Your task to perform on an android device: Set the phone to "Do not disturb". Image 0: 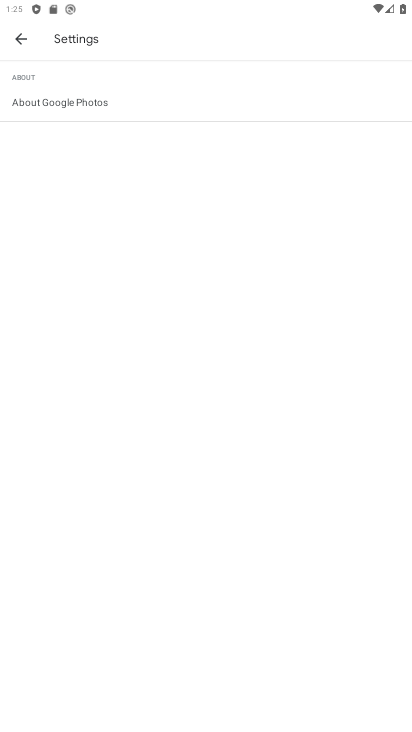
Step 0: press home button
Your task to perform on an android device: Set the phone to "Do not disturb". Image 1: 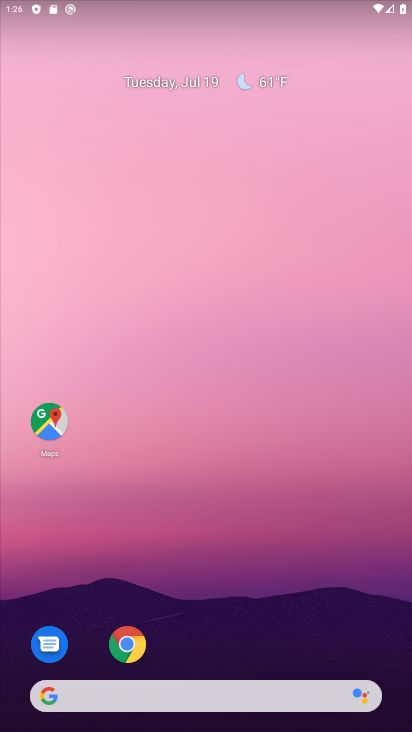
Step 1: drag from (396, 703) to (395, 169)
Your task to perform on an android device: Set the phone to "Do not disturb". Image 2: 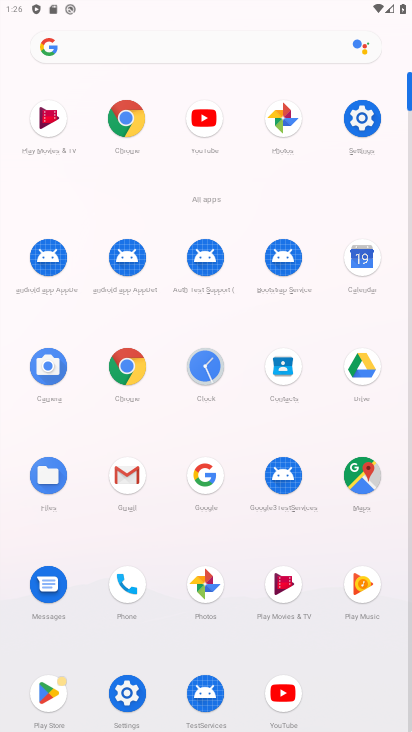
Step 2: click (364, 127)
Your task to perform on an android device: Set the phone to "Do not disturb". Image 3: 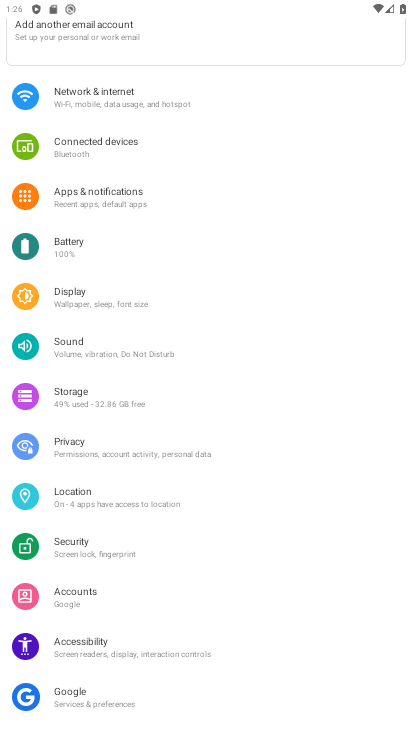
Step 3: click (63, 346)
Your task to perform on an android device: Set the phone to "Do not disturb". Image 4: 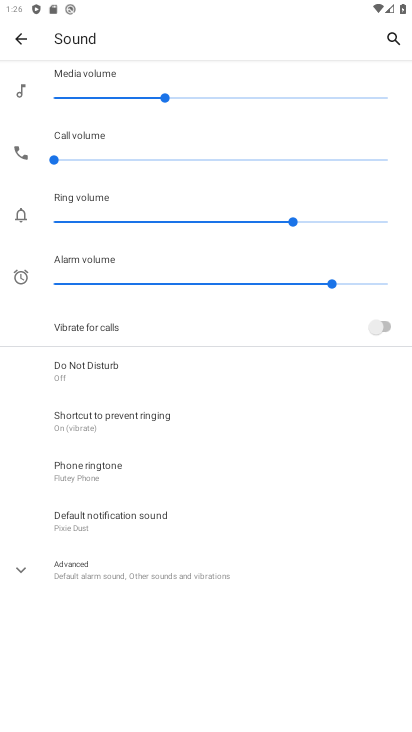
Step 4: click (89, 372)
Your task to perform on an android device: Set the phone to "Do not disturb". Image 5: 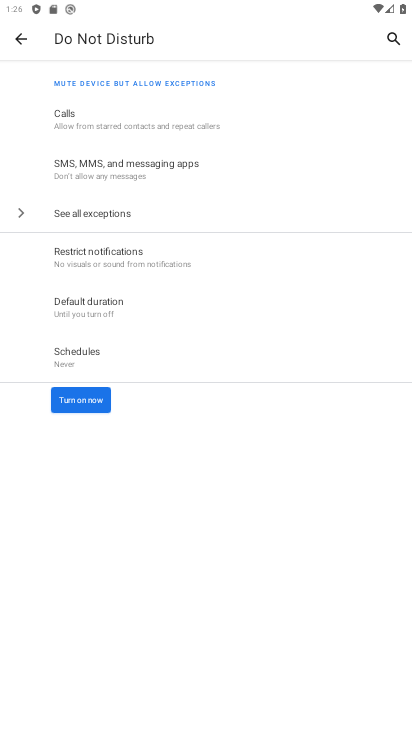
Step 5: click (76, 397)
Your task to perform on an android device: Set the phone to "Do not disturb". Image 6: 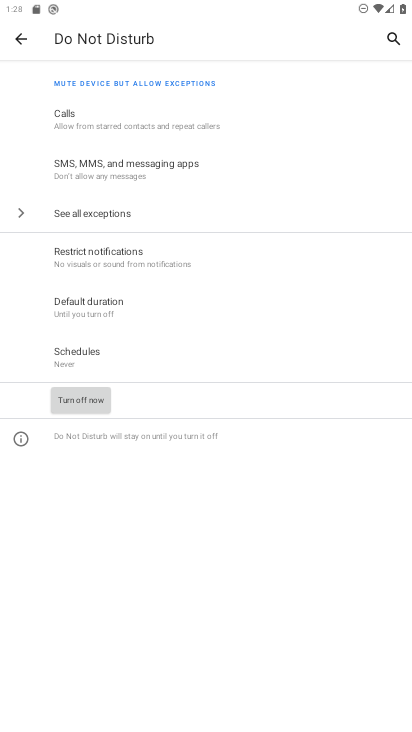
Step 6: task complete